Your task to perform on an android device: What is the capital of the United Kingdom? Image 0: 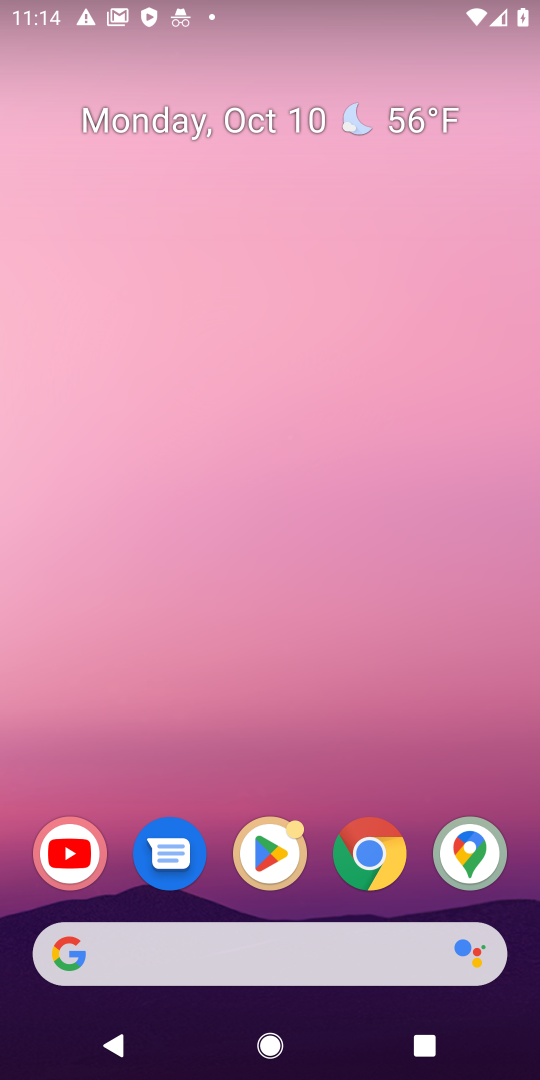
Step 0: press home button
Your task to perform on an android device: What is the capital of the United Kingdom? Image 1: 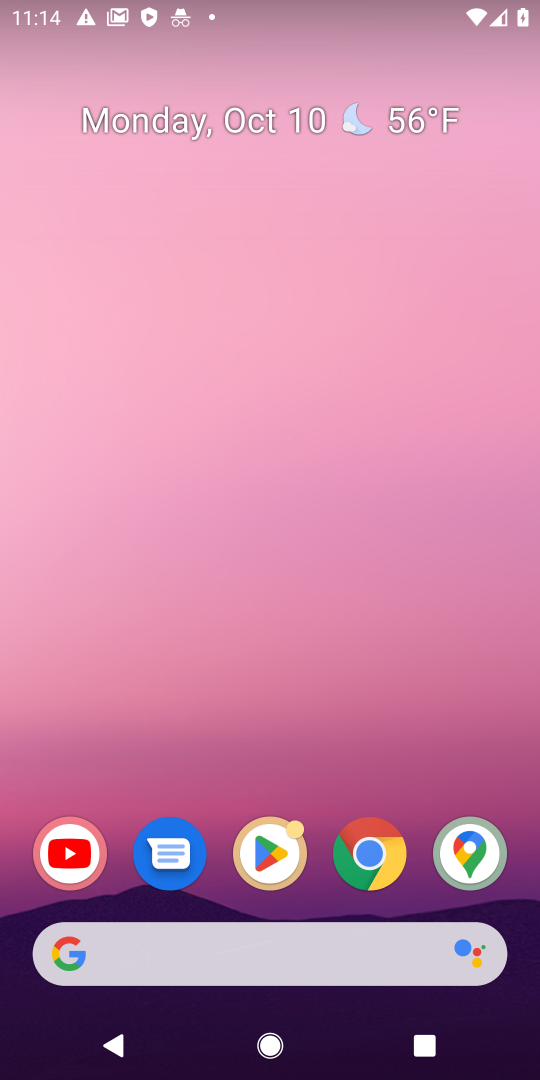
Step 1: click (250, 966)
Your task to perform on an android device: What is the capital of the United Kingdom? Image 2: 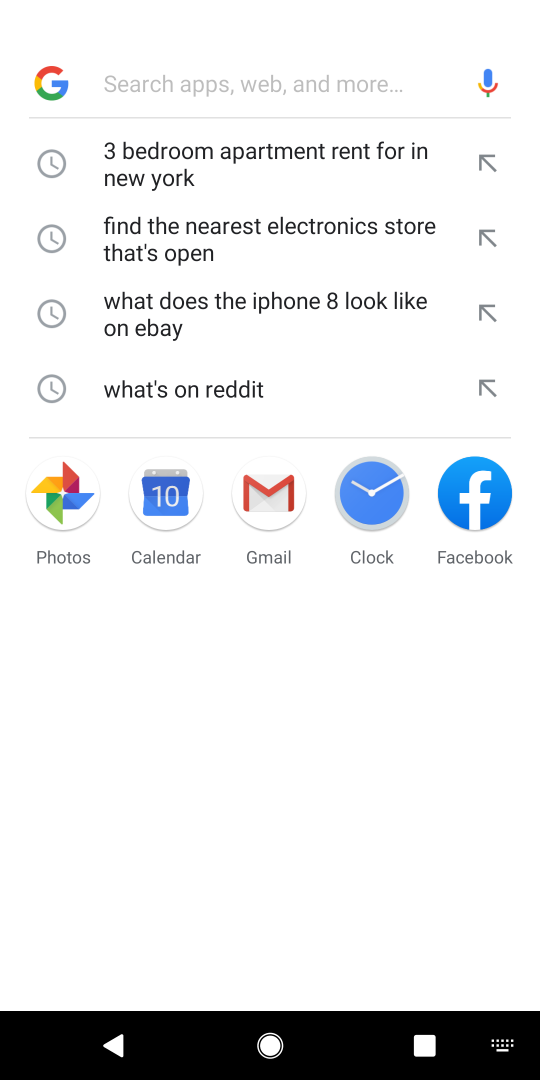
Step 2: type "What is the capital of the United Kingdom"
Your task to perform on an android device: What is the capital of the United Kingdom? Image 3: 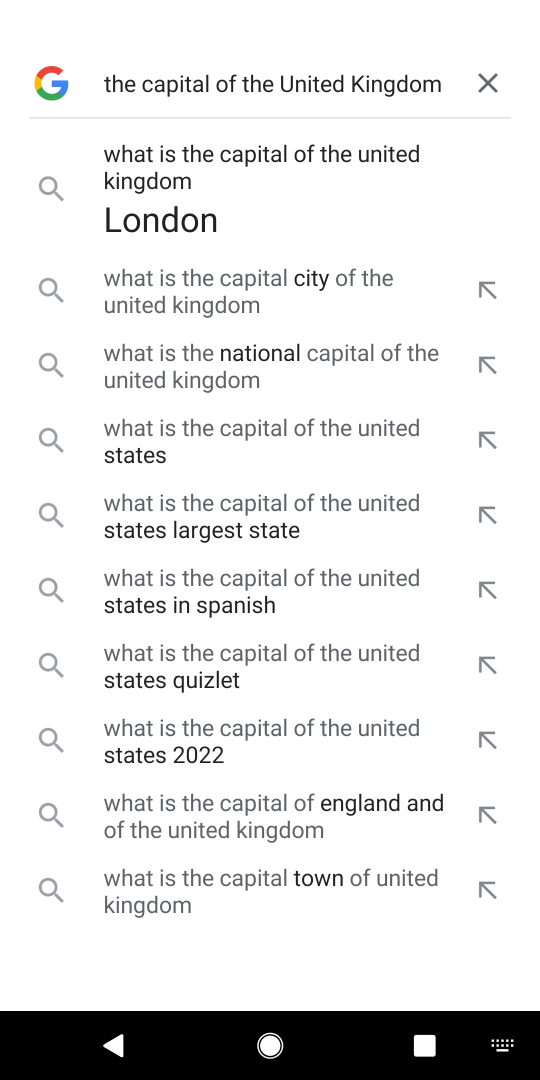
Step 3: press enter
Your task to perform on an android device: What is the capital of the United Kingdom? Image 4: 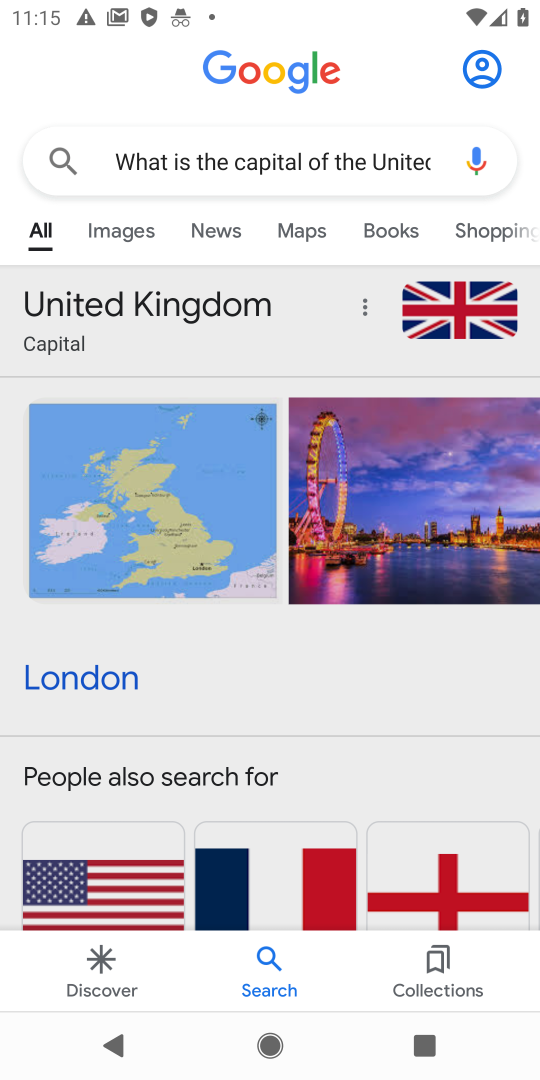
Step 4: task complete